Your task to perform on an android device: create a new album in the google photos Image 0: 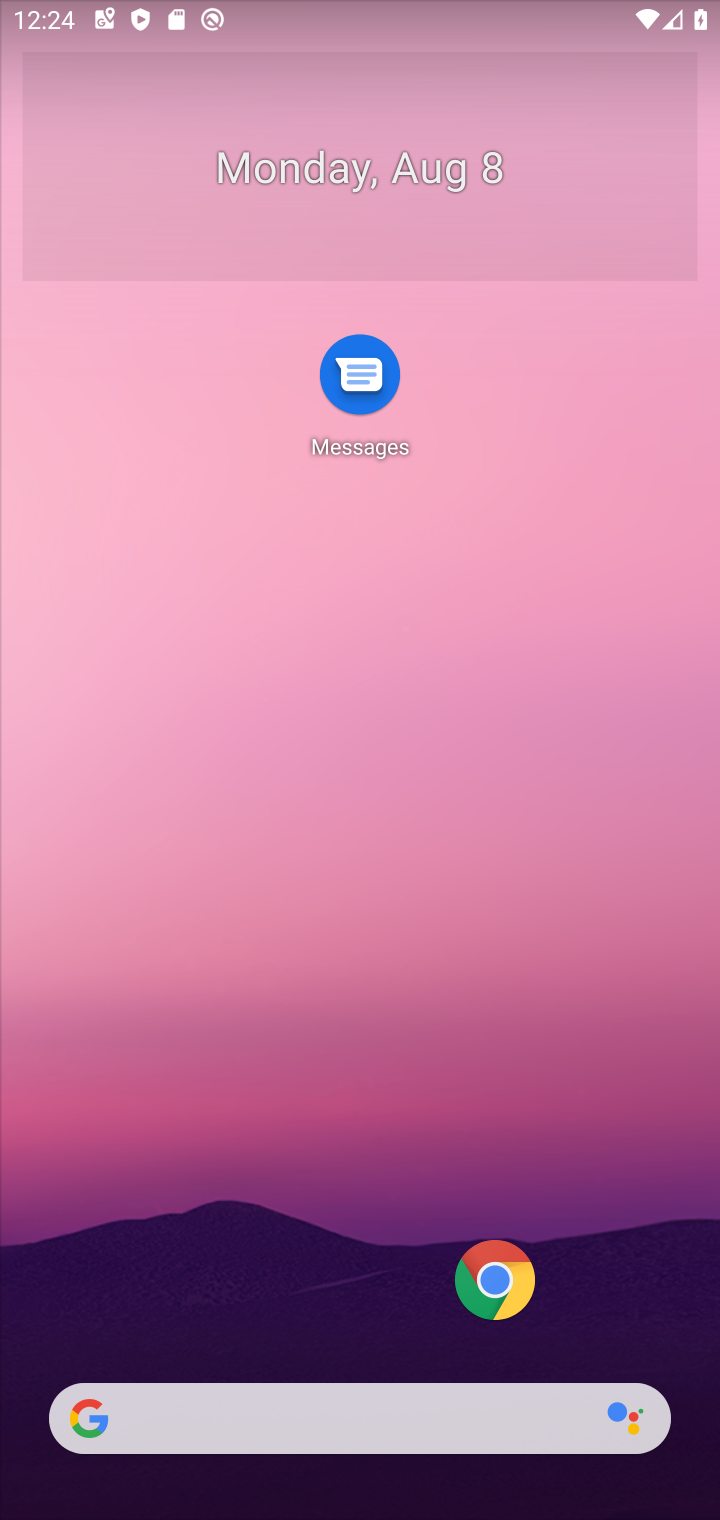
Step 0: drag from (299, 1134) to (482, 56)
Your task to perform on an android device: create a new album in the google photos Image 1: 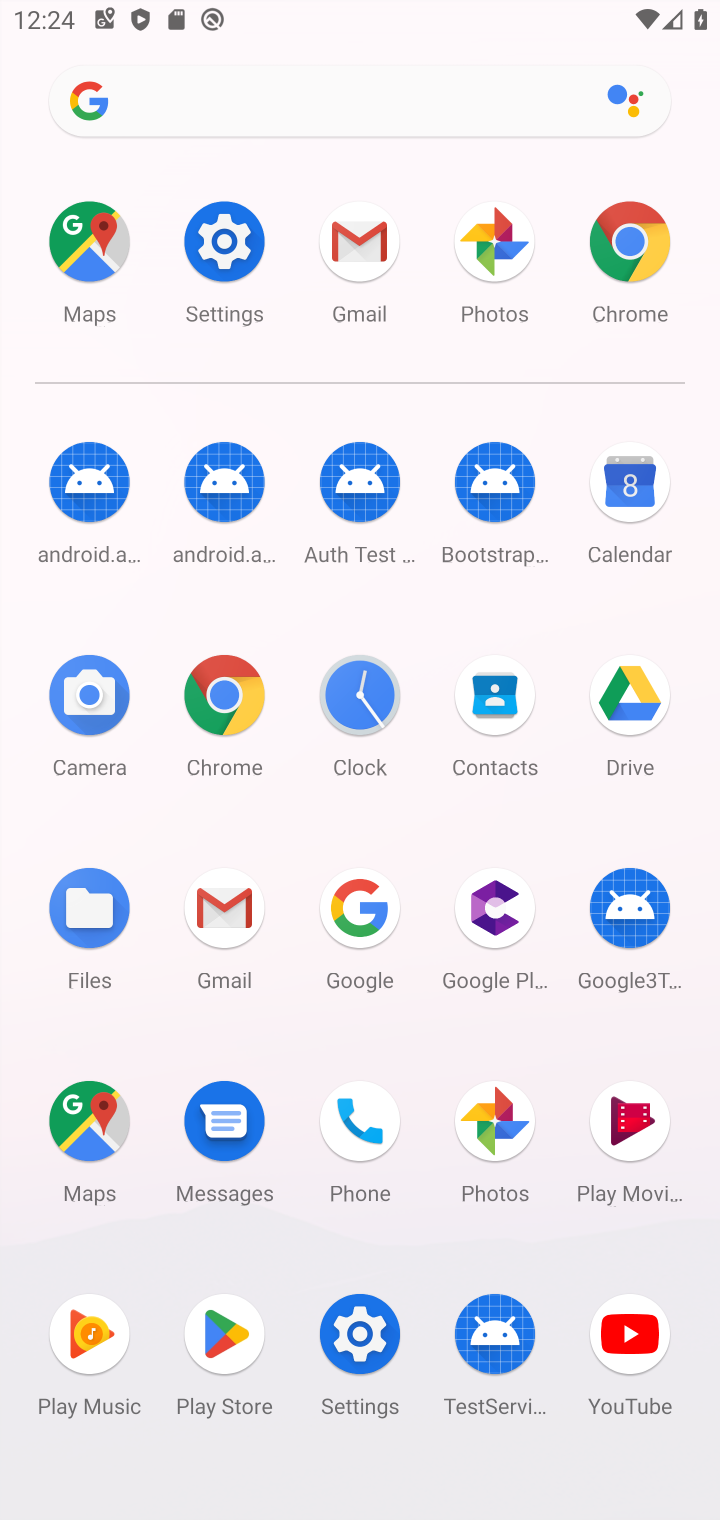
Step 1: click (477, 1106)
Your task to perform on an android device: create a new album in the google photos Image 2: 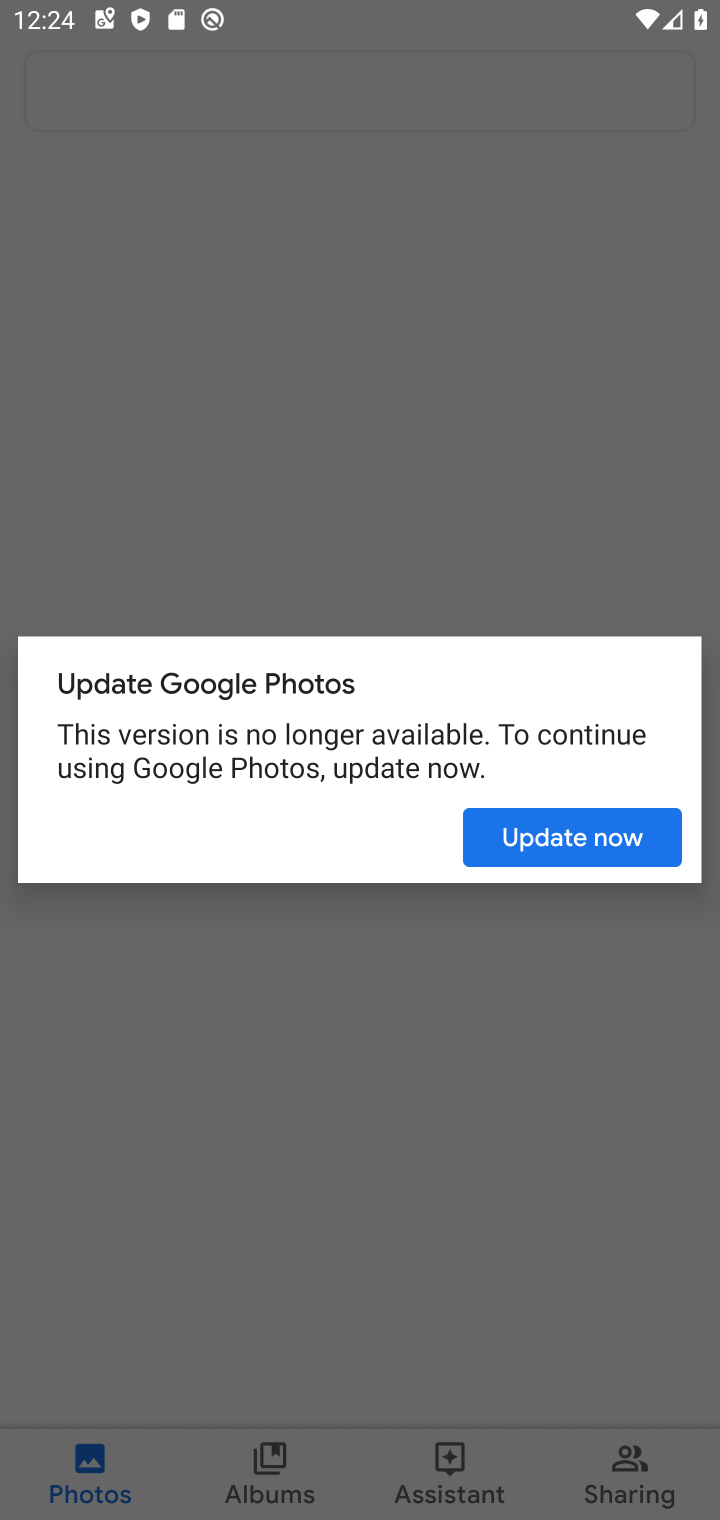
Step 2: click (543, 828)
Your task to perform on an android device: create a new album in the google photos Image 3: 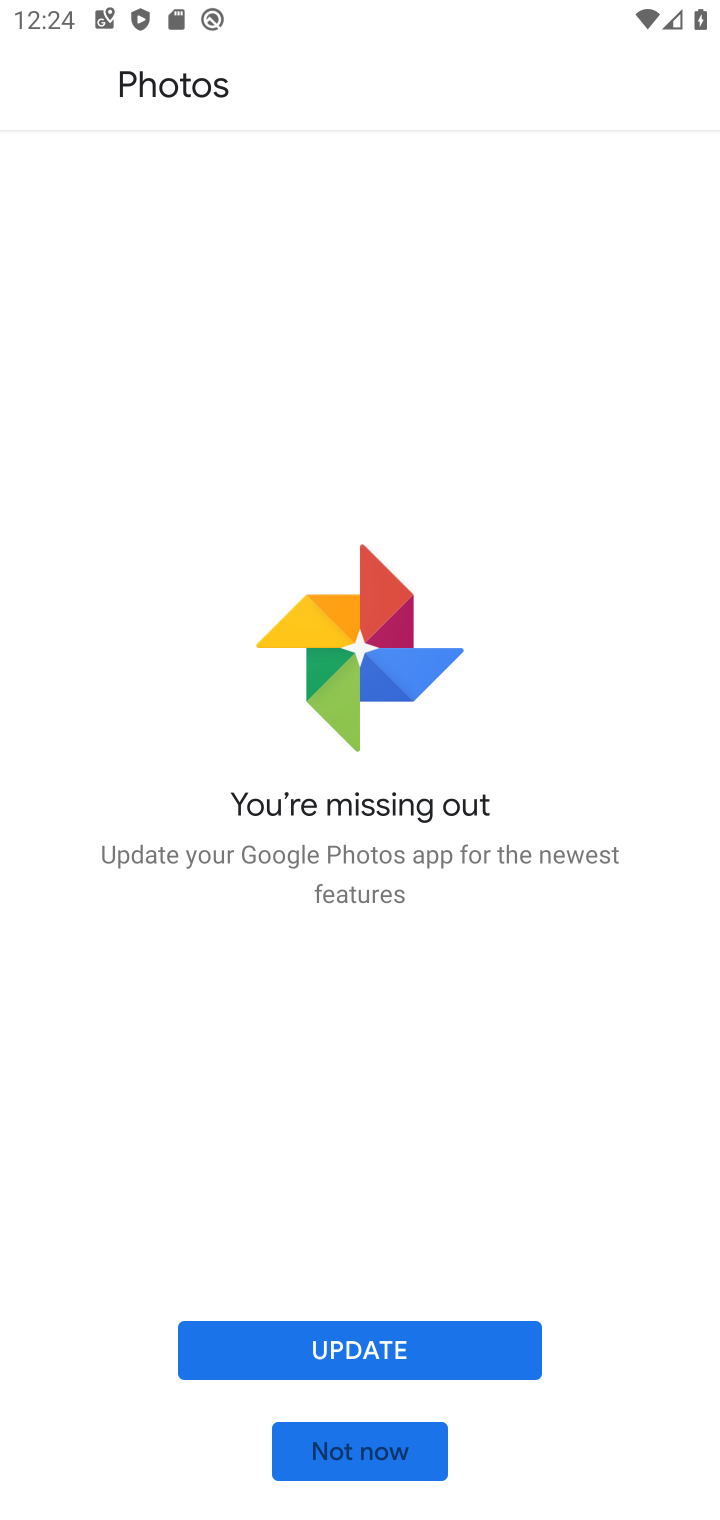
Step 3: click (326, 1437)
Your task to perform on an android device: create a new album in the google photos Image 4: 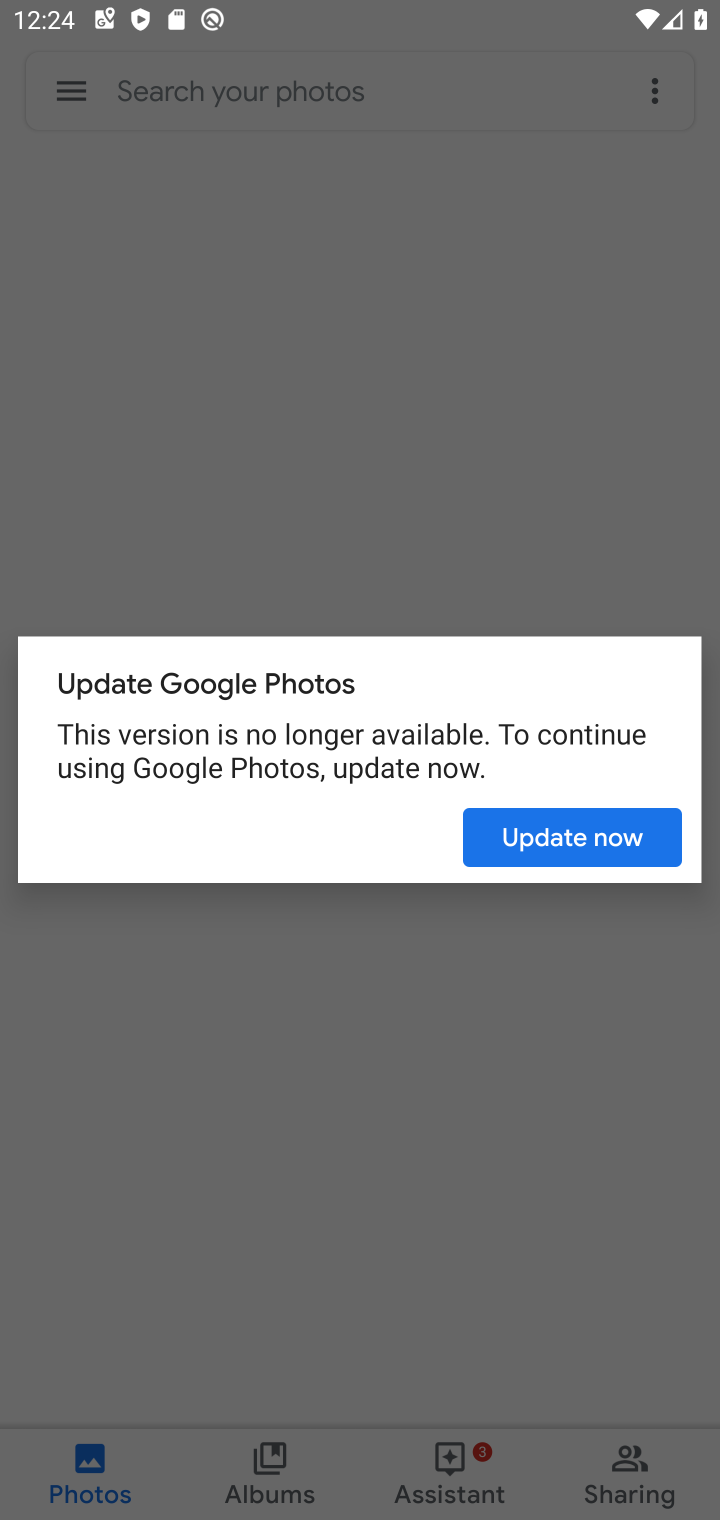
Step 4: click (541, 846)
Your task to perform on an android device: create a new album in the google photos Image 5: 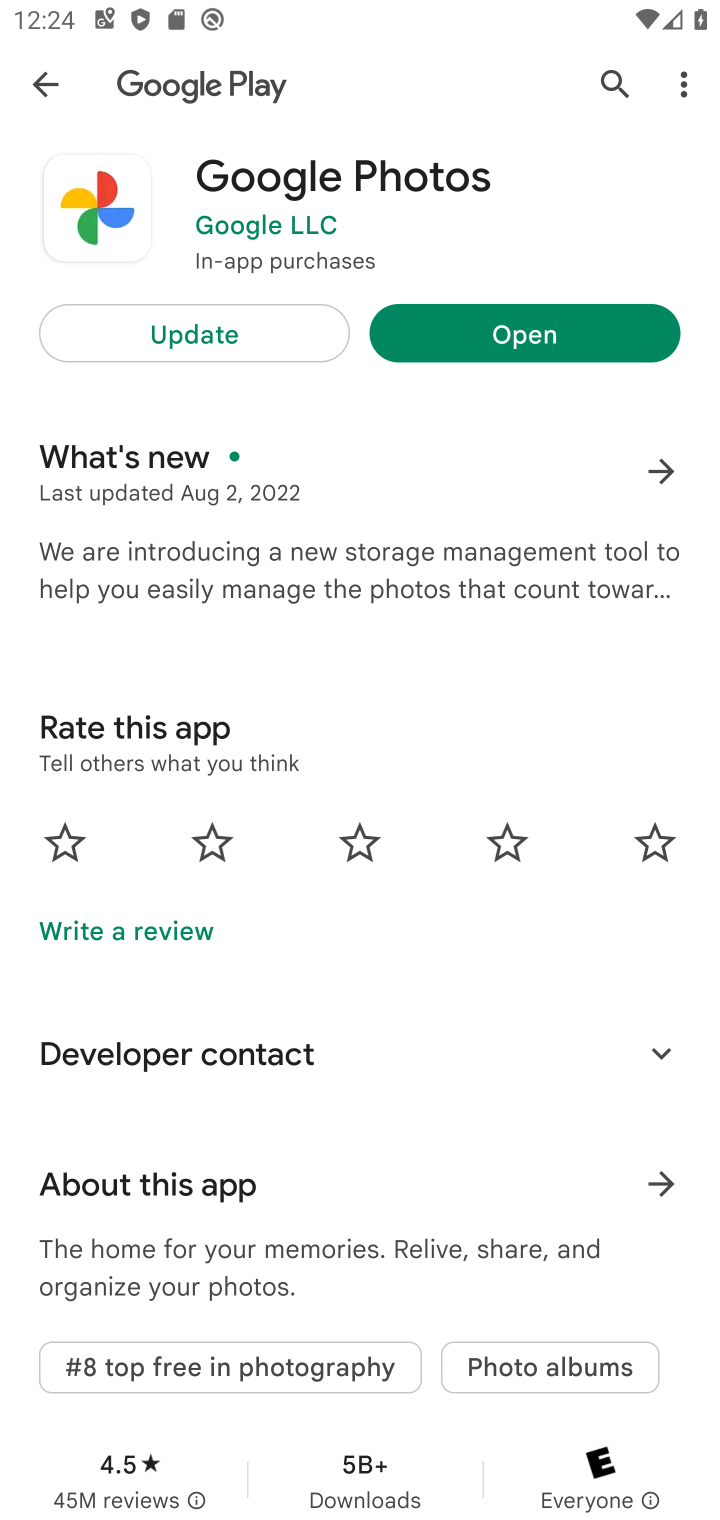
Step 5: click (532, 320)
Your task to perform on an android device: create a new album in the google photos Image 6: 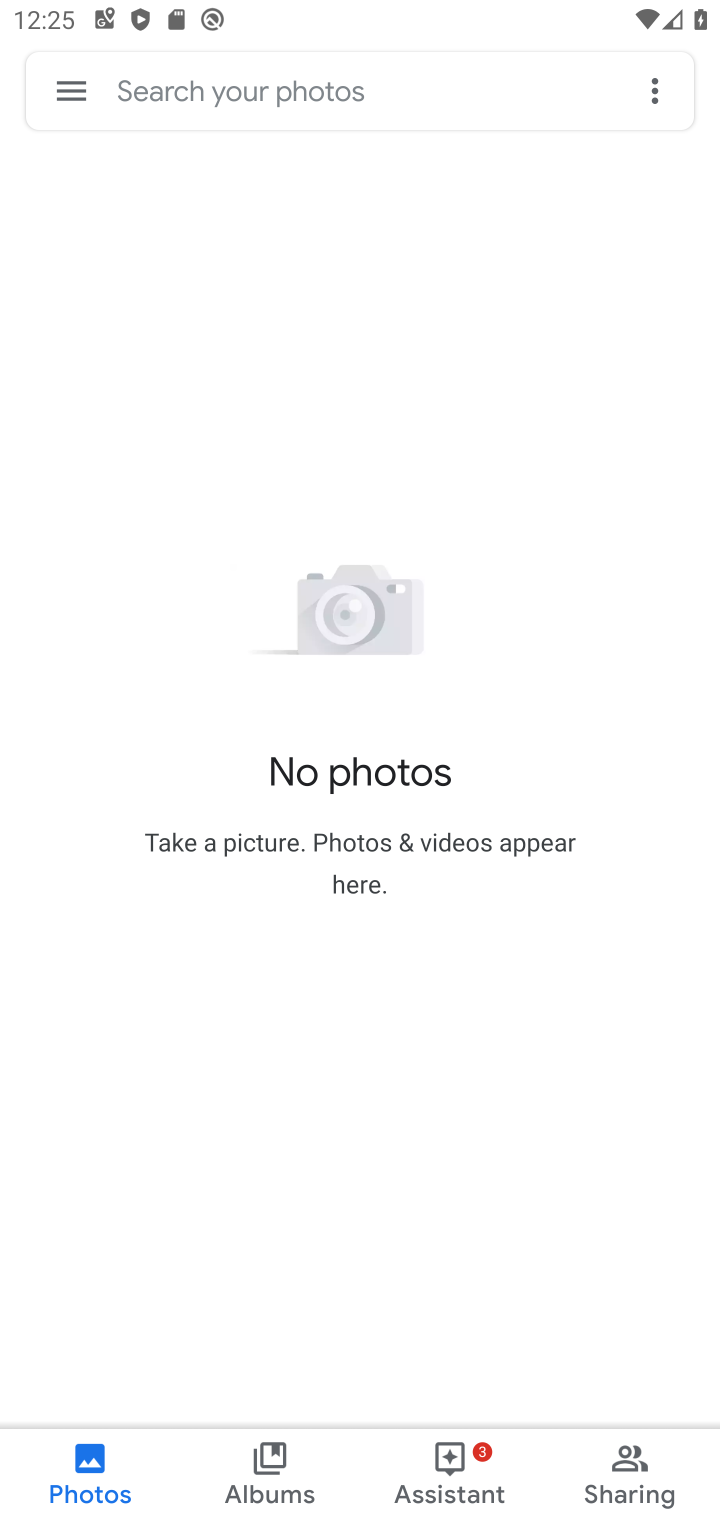
Step 6: click (283, 1498)
Your task to perform on an android device: create a new album in the google photos Image 7: 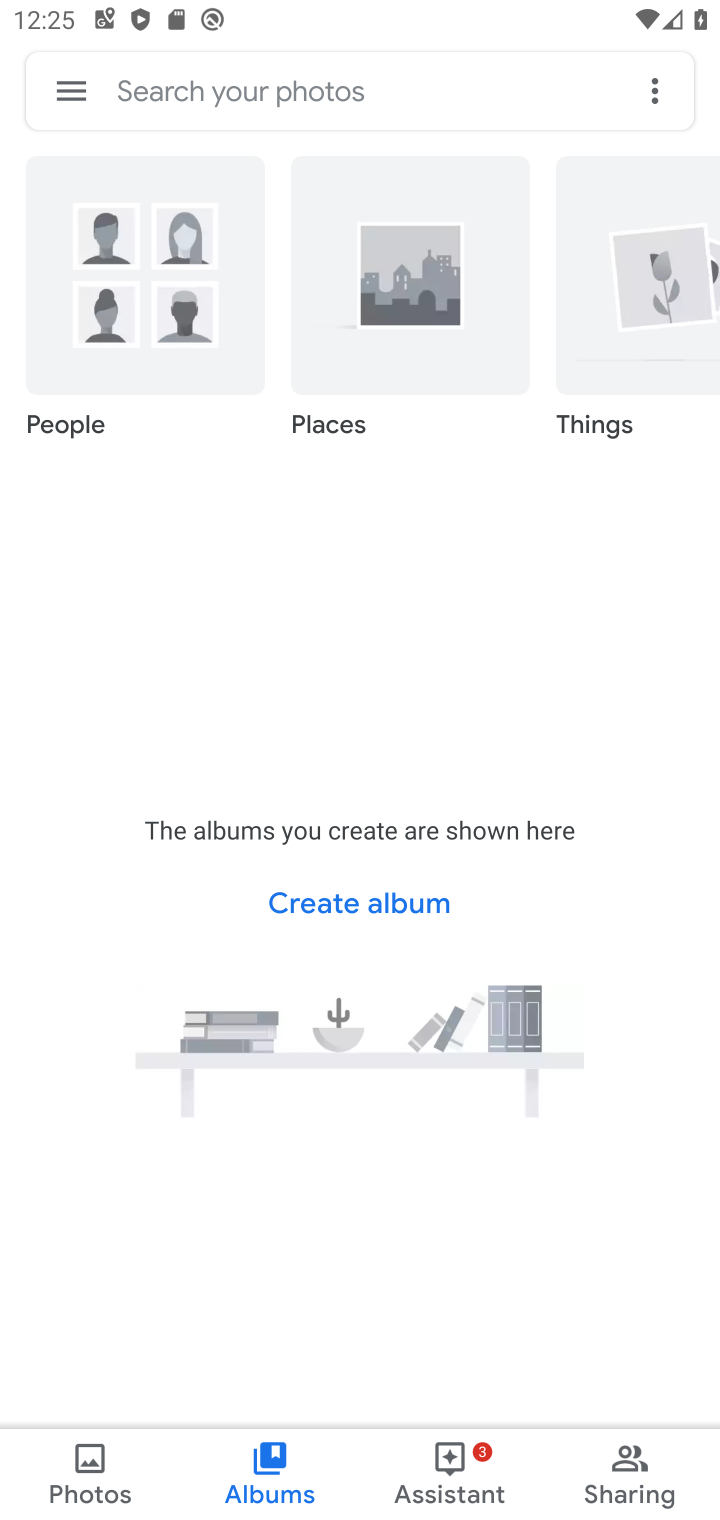
Step 7: click (406, 922)
Your task to perform on an android device: create a new album in the google photos Image 8: 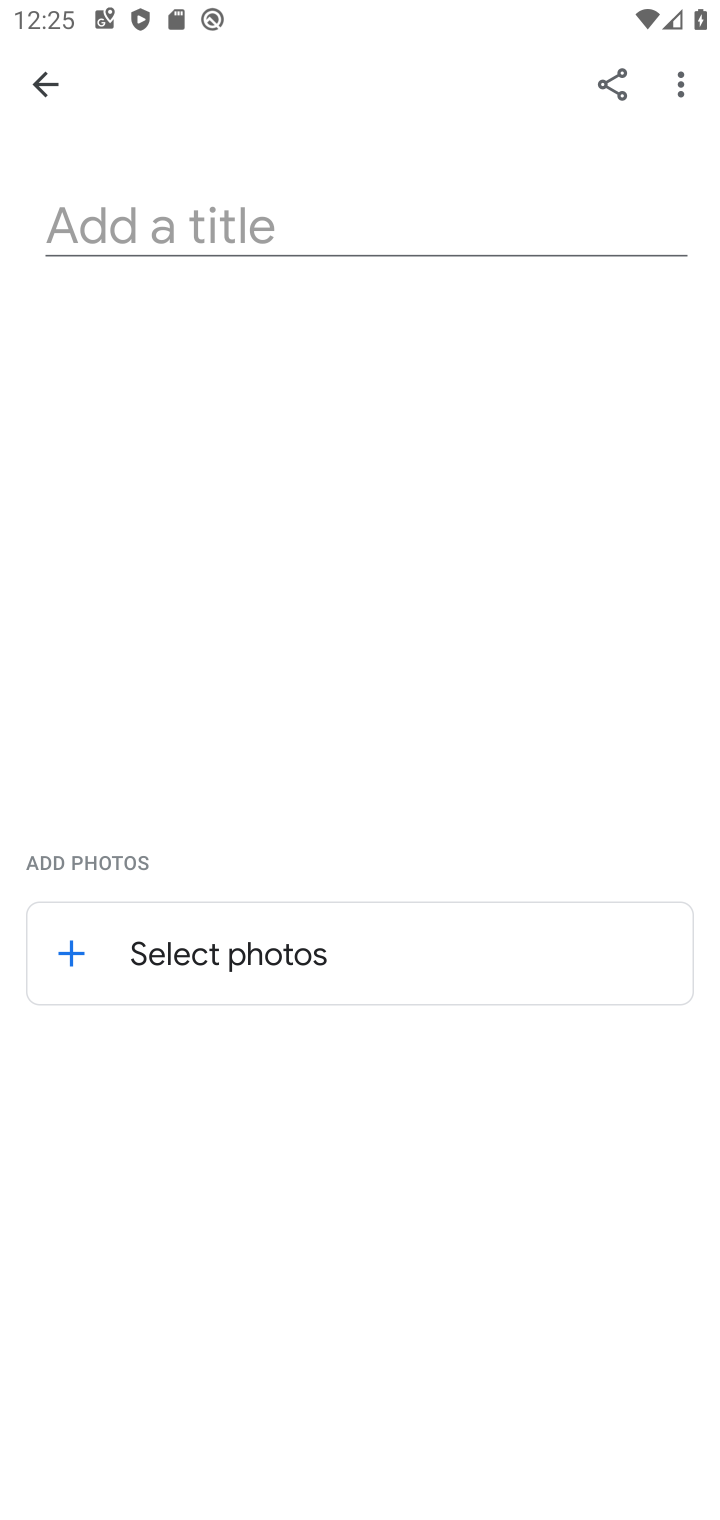
Step 8: click (200, 242)
Your task to perform on an android device: create a new album in the google photos Image 9: 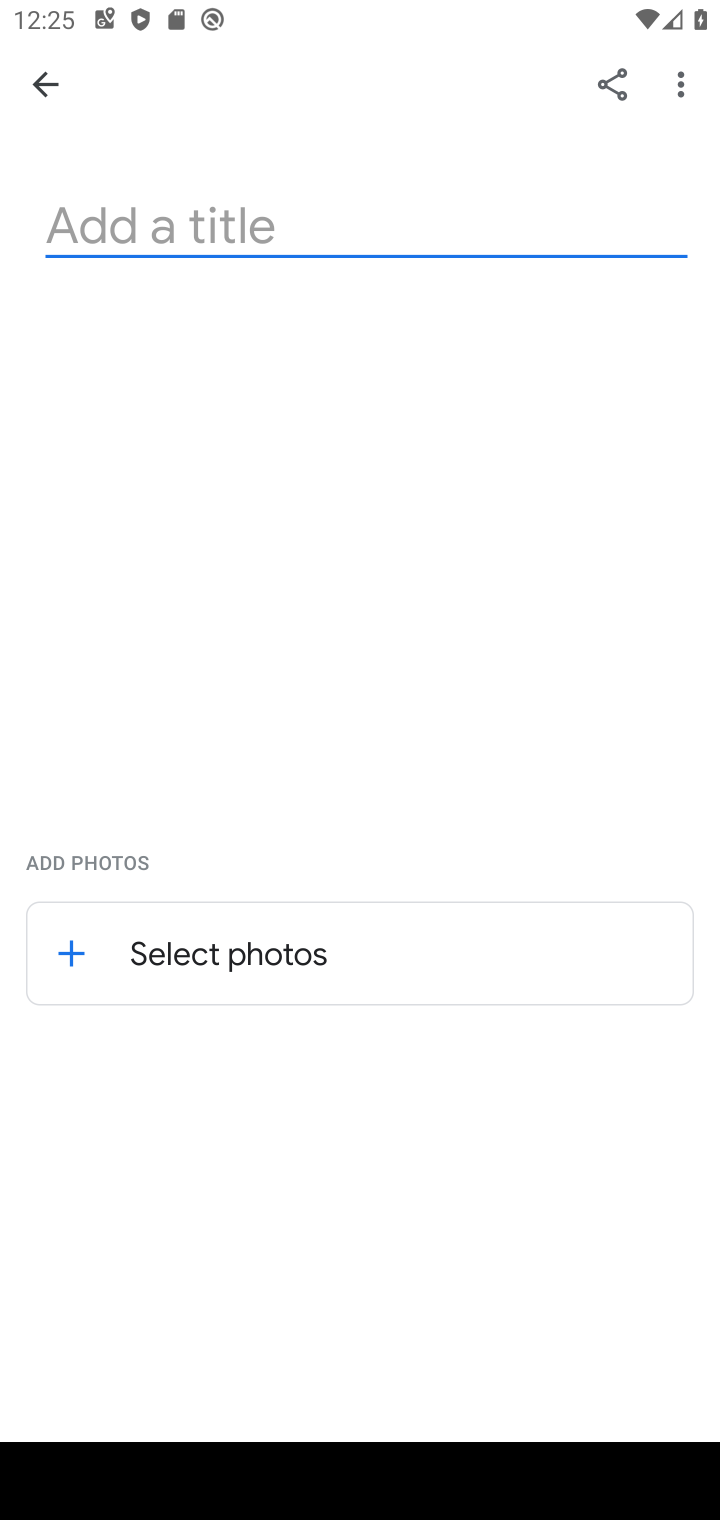
Step 9: type "ffhhh"
Your task to perform on an android device: create a new album in the google photos Image 10: 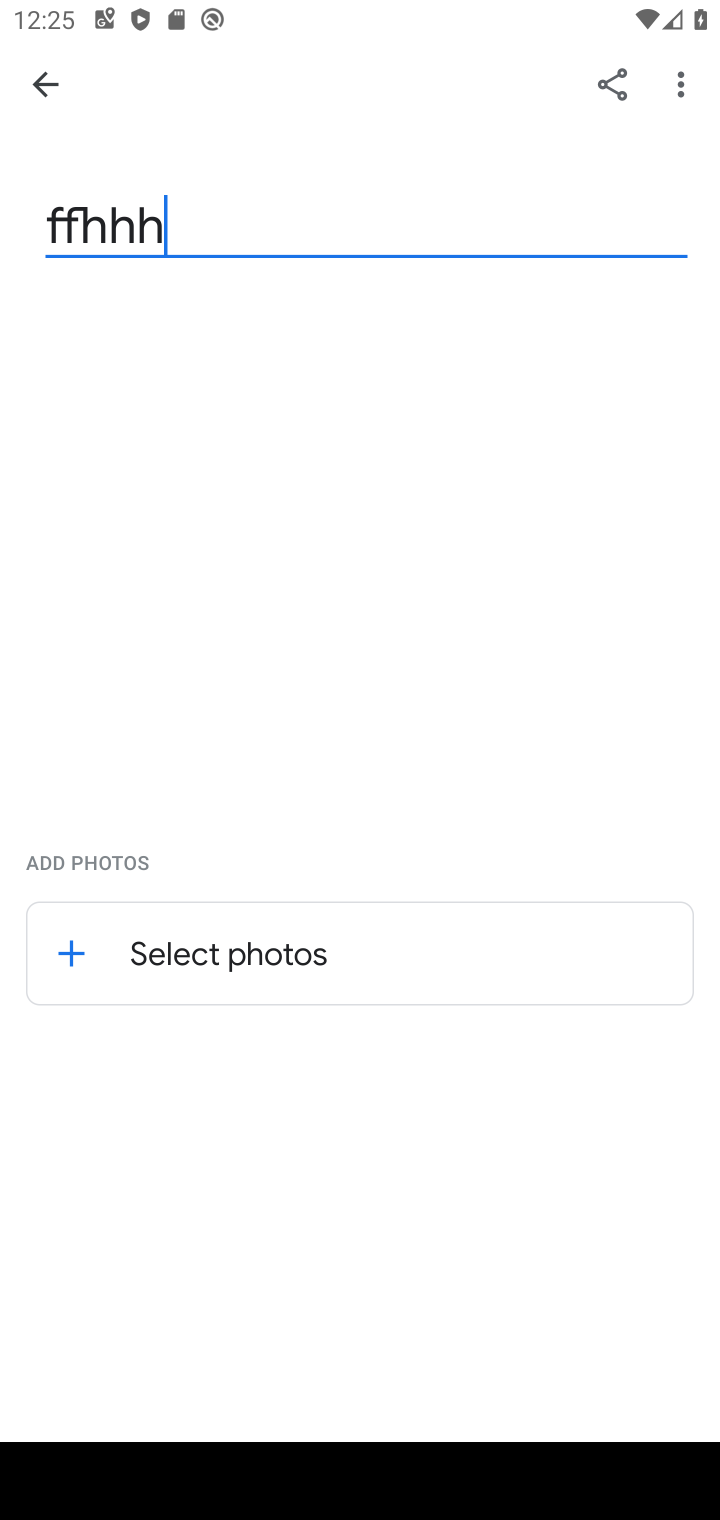
Step 10: click (464, 935)
Your task to perform on an android device: create a new album in the google photos Image 11: 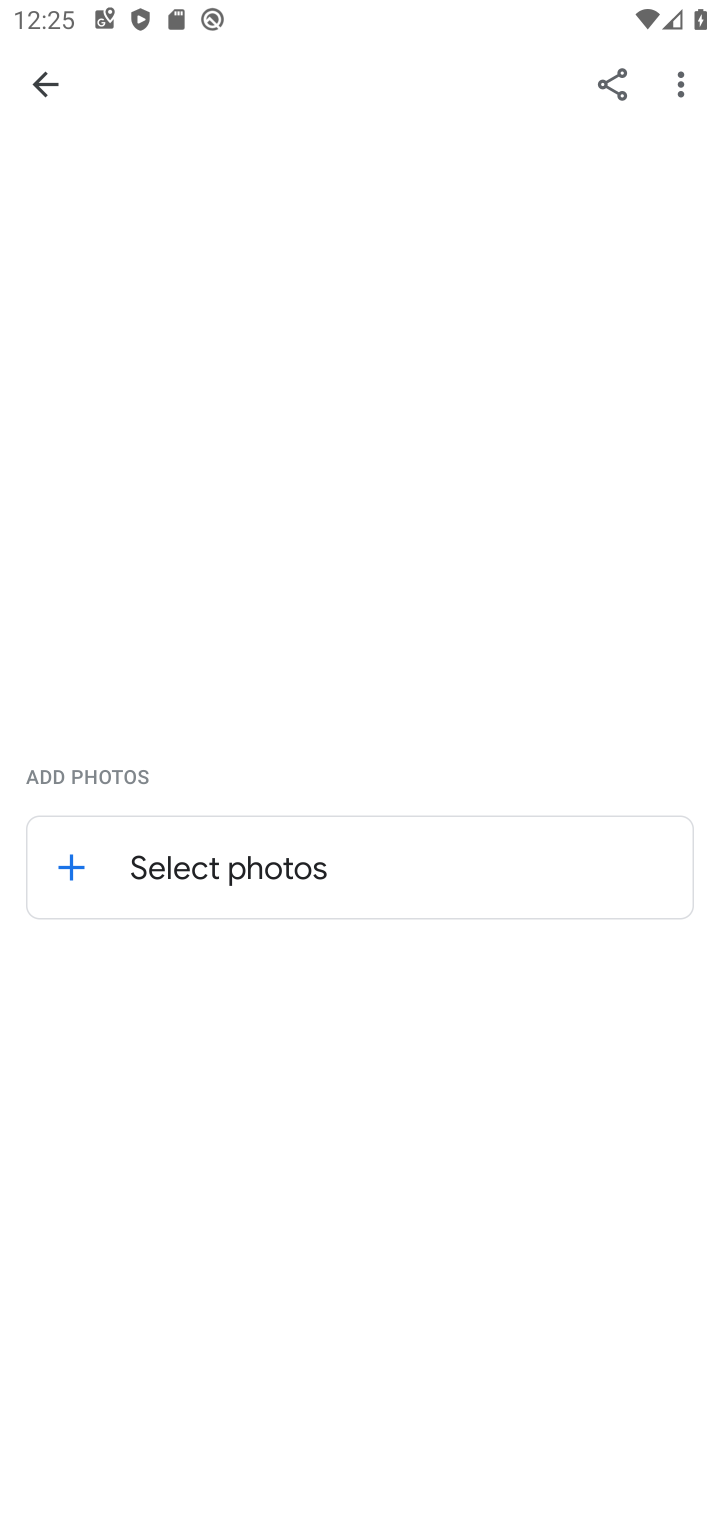
Step 11: click (233, 874)
Your task to perform on an android device: create a new album in the google photos Image 12: 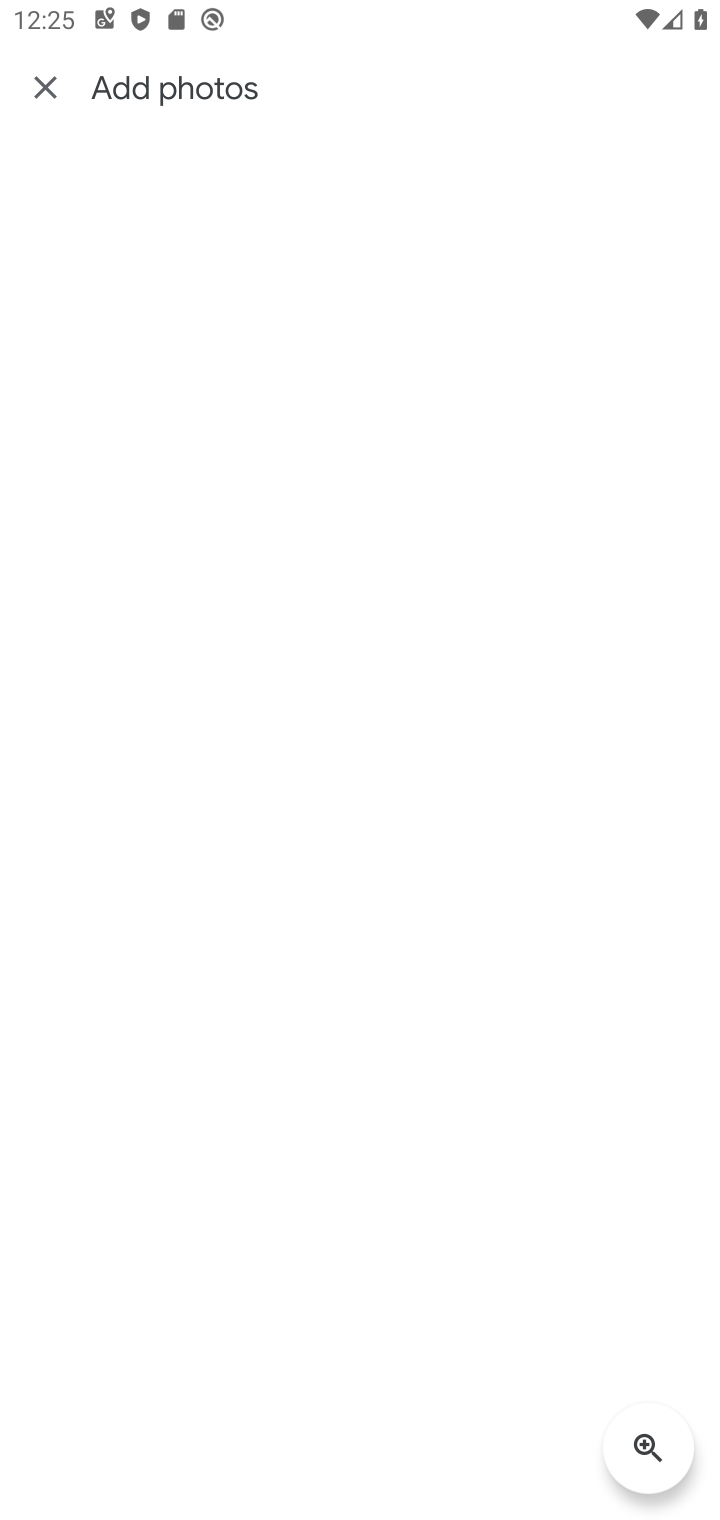
Step 12: task complete